Your task to perform on an android device: install app "ZOOM Cloud Meetings" Image 0: 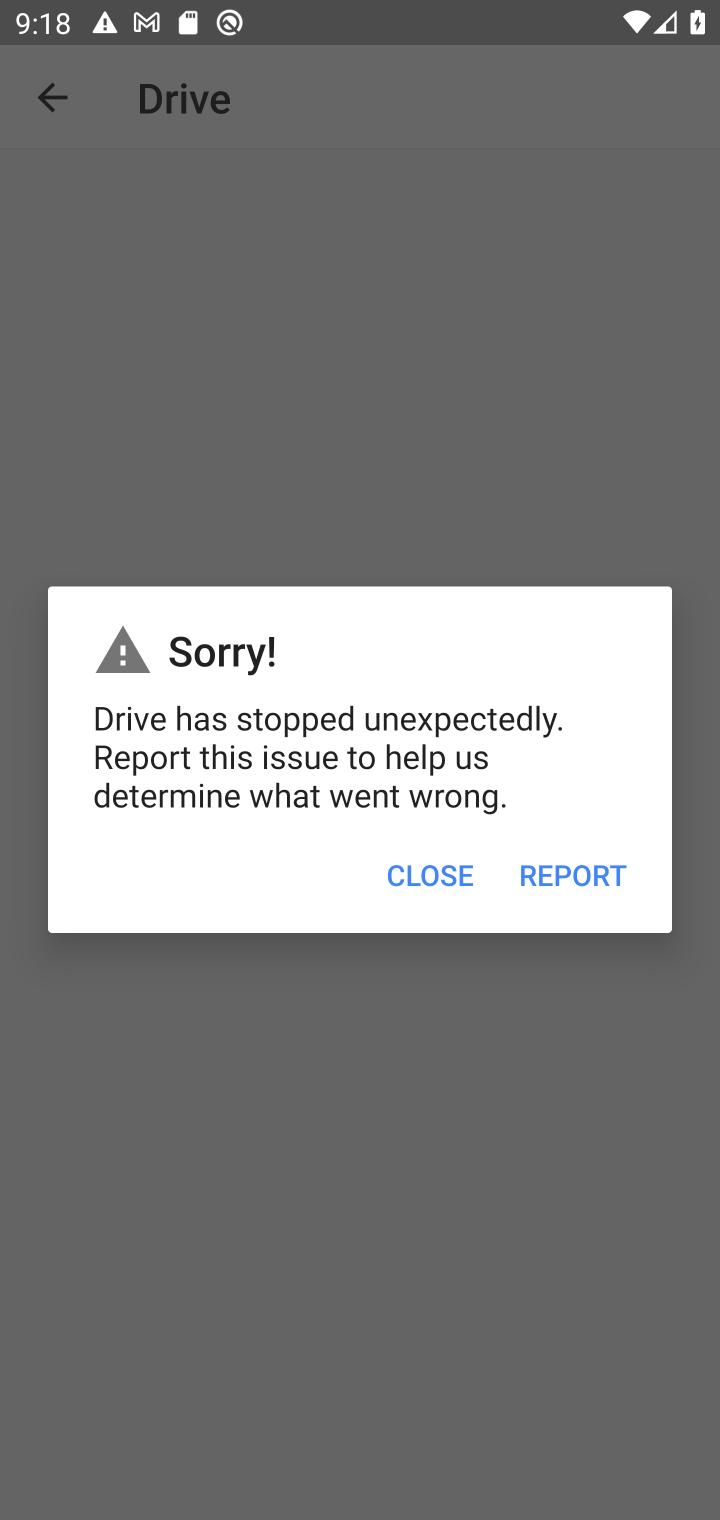
Step 0: press home button
Your task to perform on an android device: install app "ZOOM Cloud Meetings" Image 1: 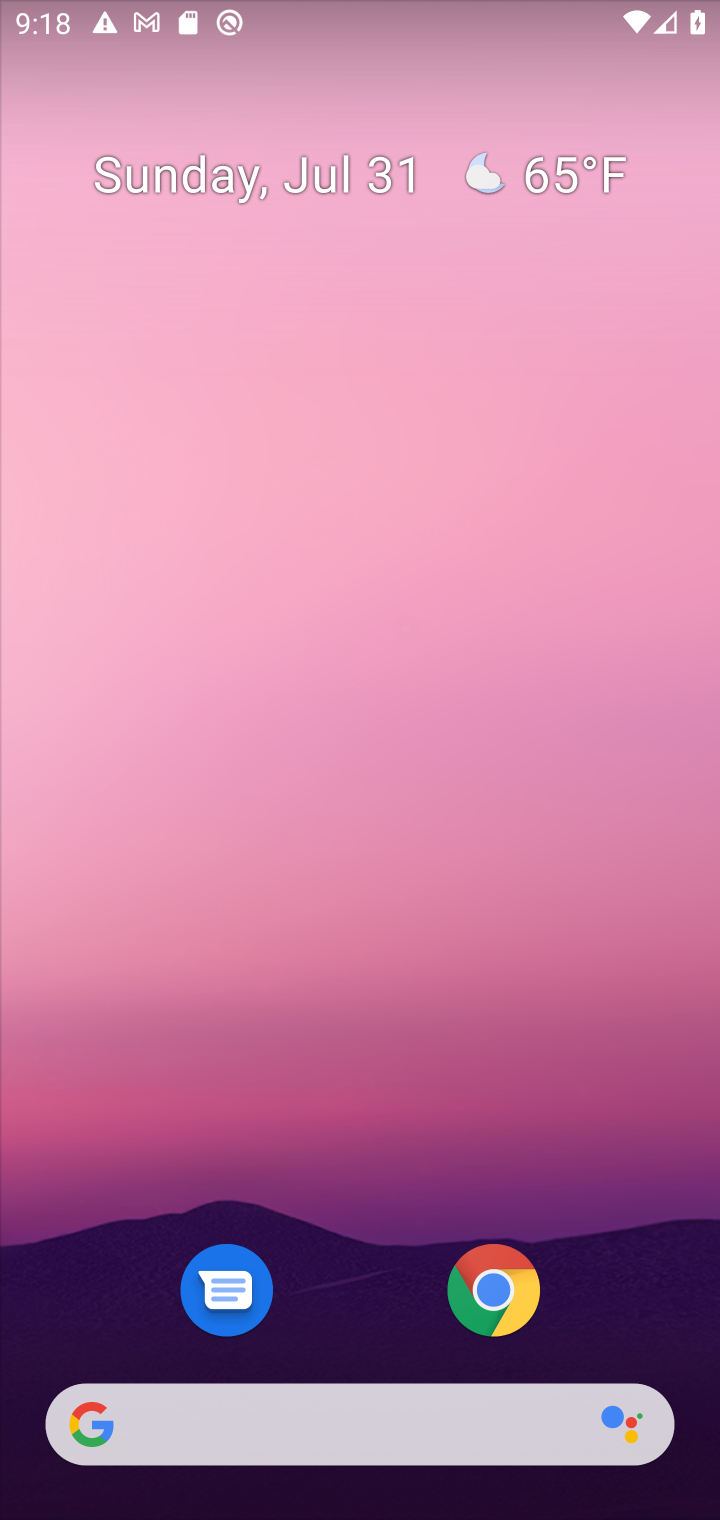
Step 1: drag from (602, 1276) to (583, 193)
Your task to perform on an android device: install app "ZOOM Cloud Meetings" Image 2: 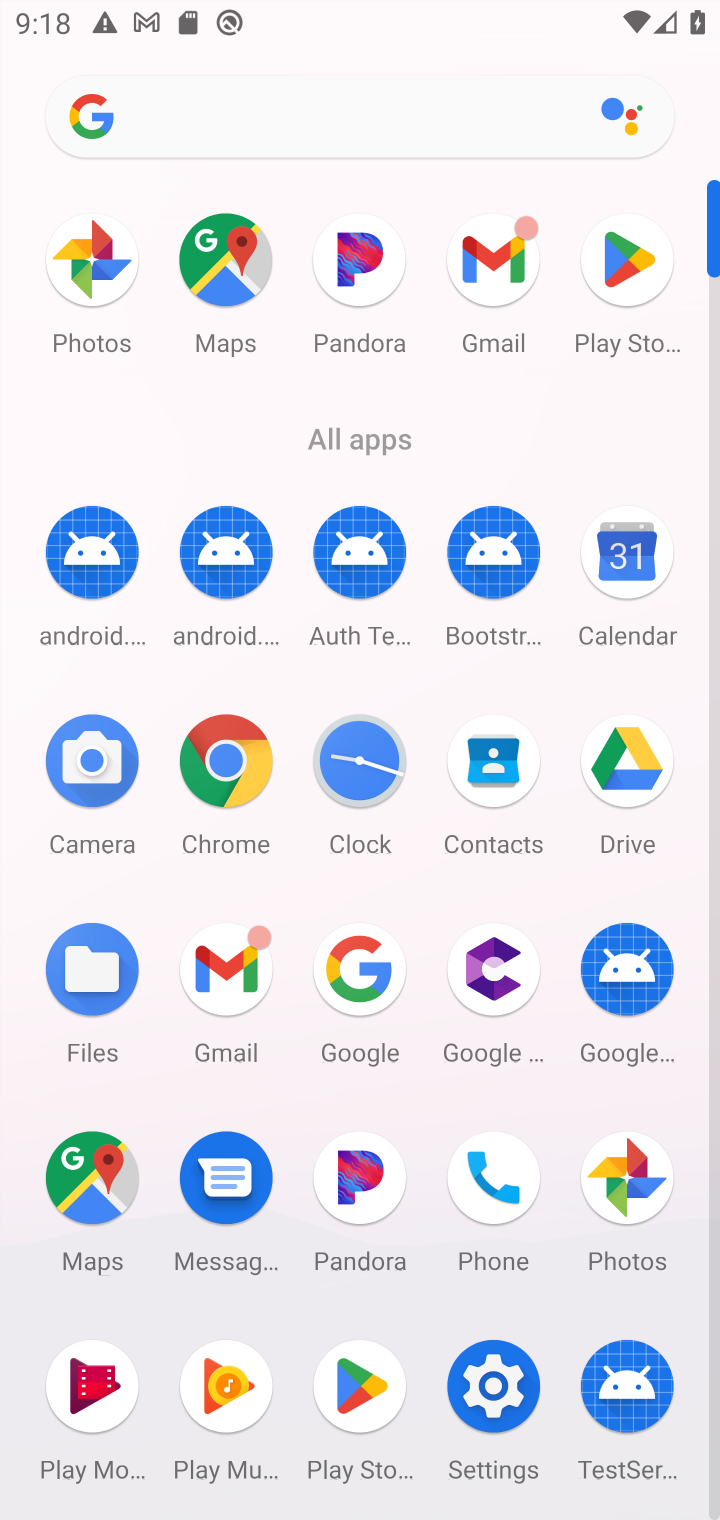
Step 2: click (620, 271)
Your task to perform on an android device: install app "ZOOM Cloud Meetings" Image 3: 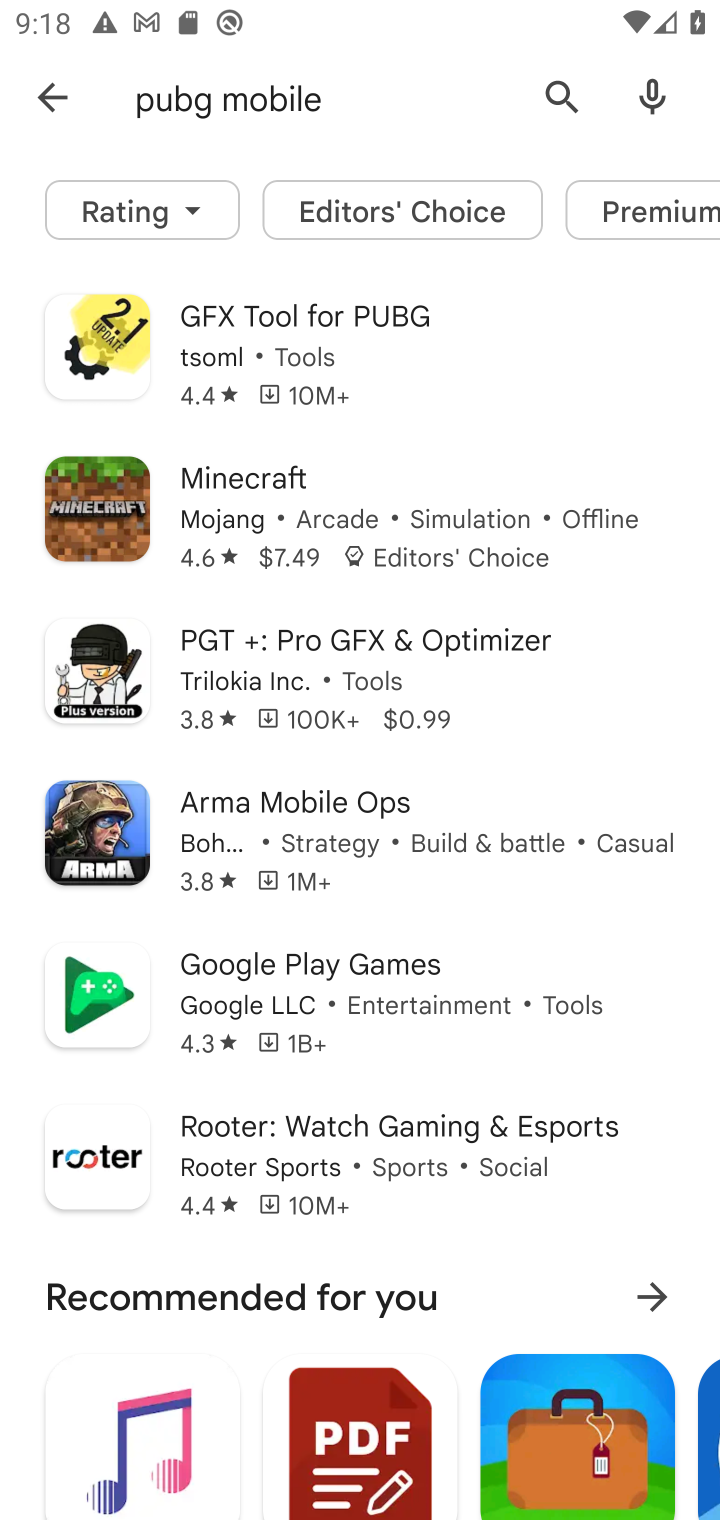
Step 3: click (559, 86)
Your task to perform on an android device: install app "ZOOM Cloud Meetings" Image 4: 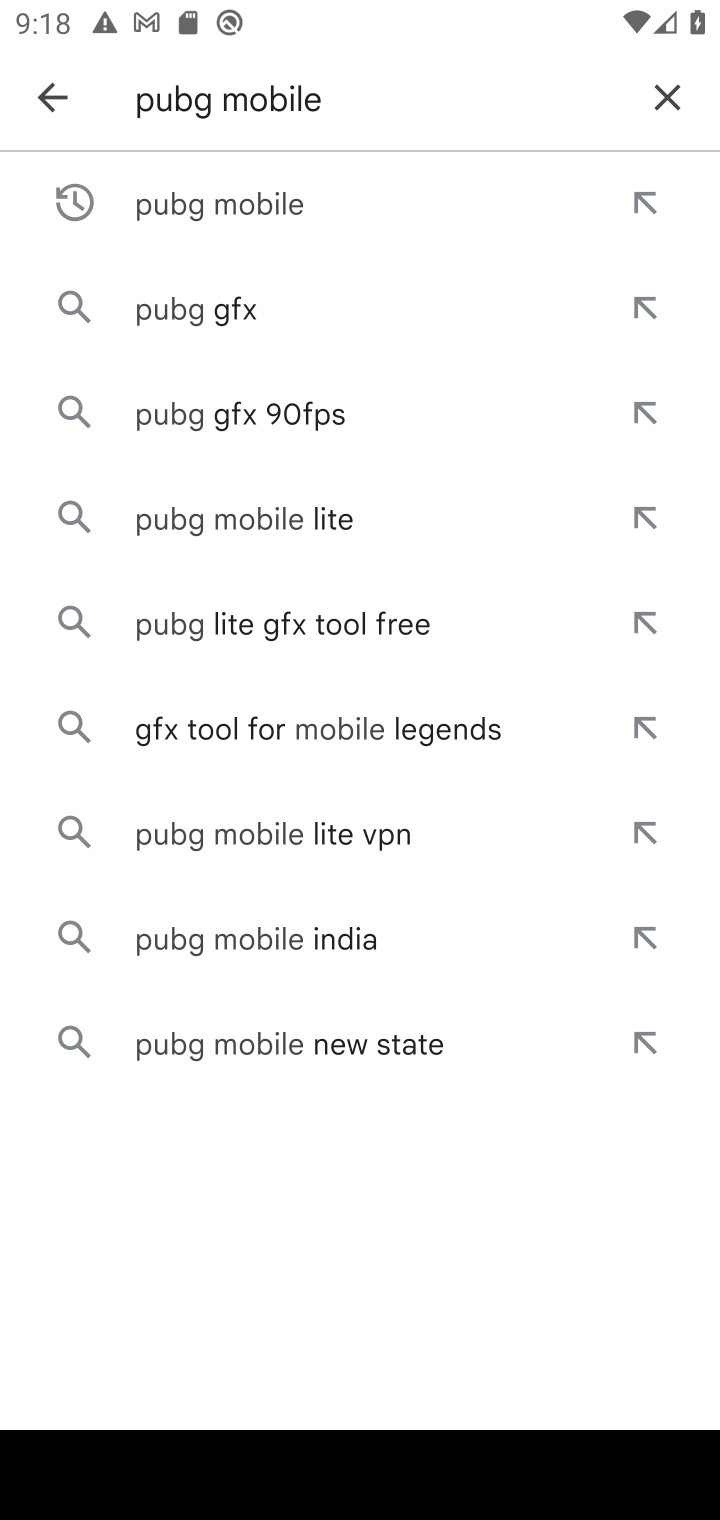
Step 4: click (657, 90)
Your task to perform on an android device: install app "ZOOM Cloud Meetings" Image 5: 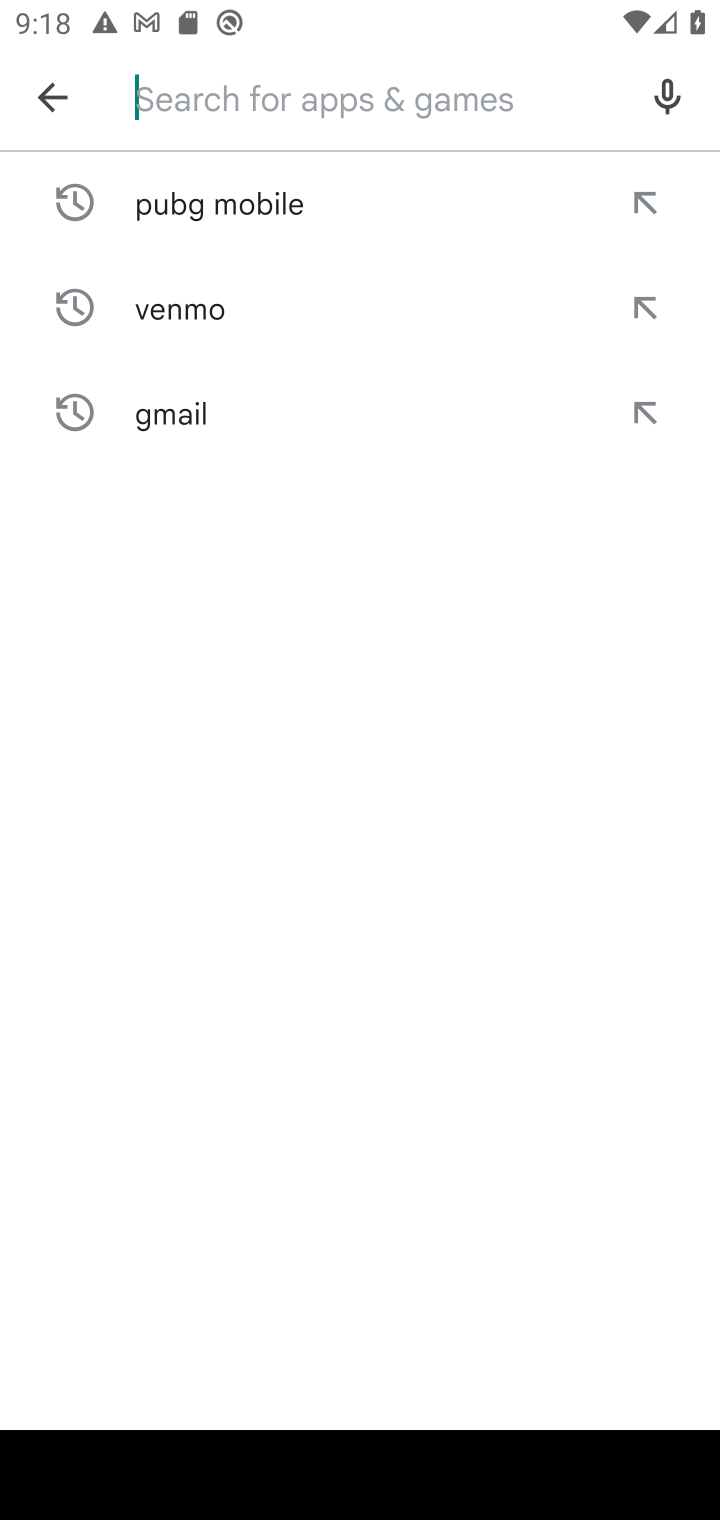
Step 5: click (419, 79)
Your task to perform on an android device: install app "ZOOM Cloud Meetings" Image 6: 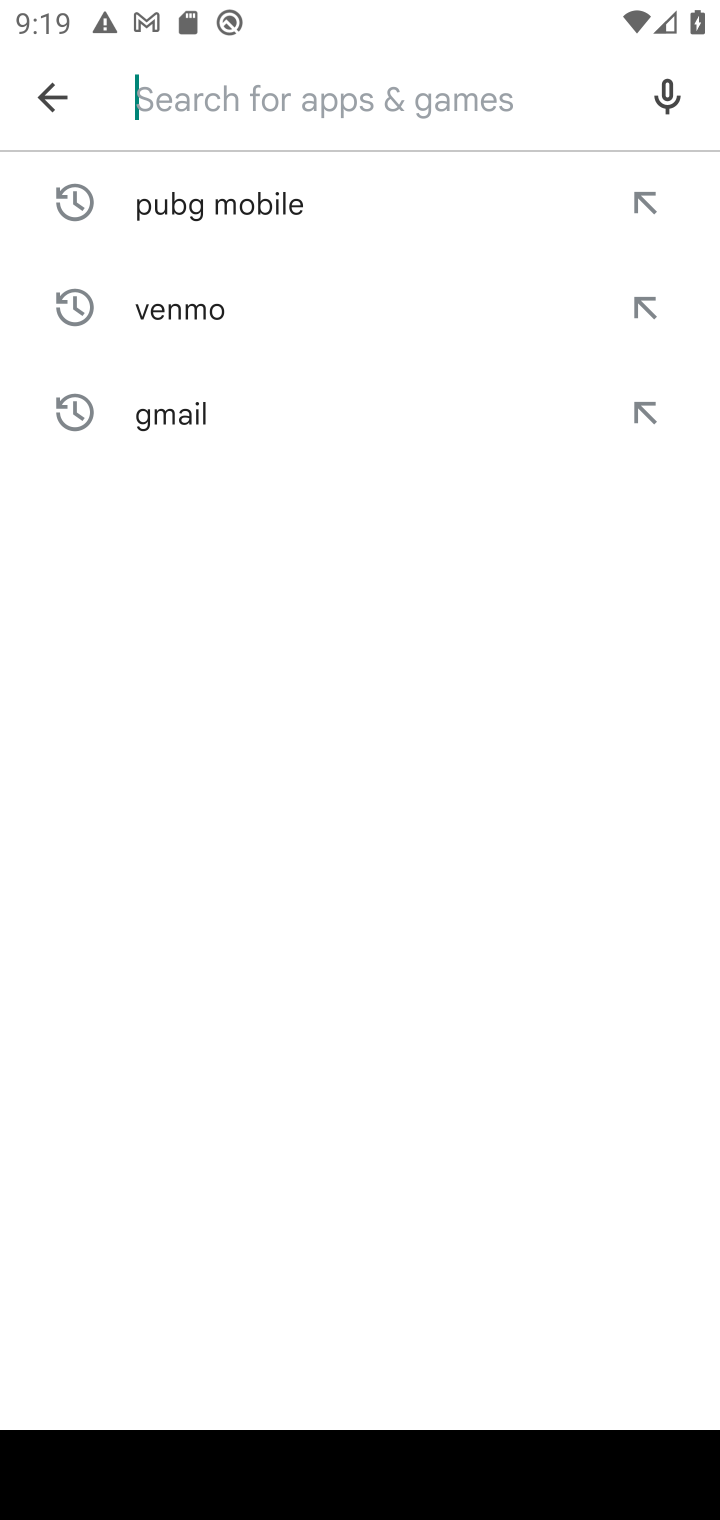
Step 6: type "zoom cloud meeting"
Your task to perform on an android device: install app "ZOOM Cloud Meetings" Image 7: 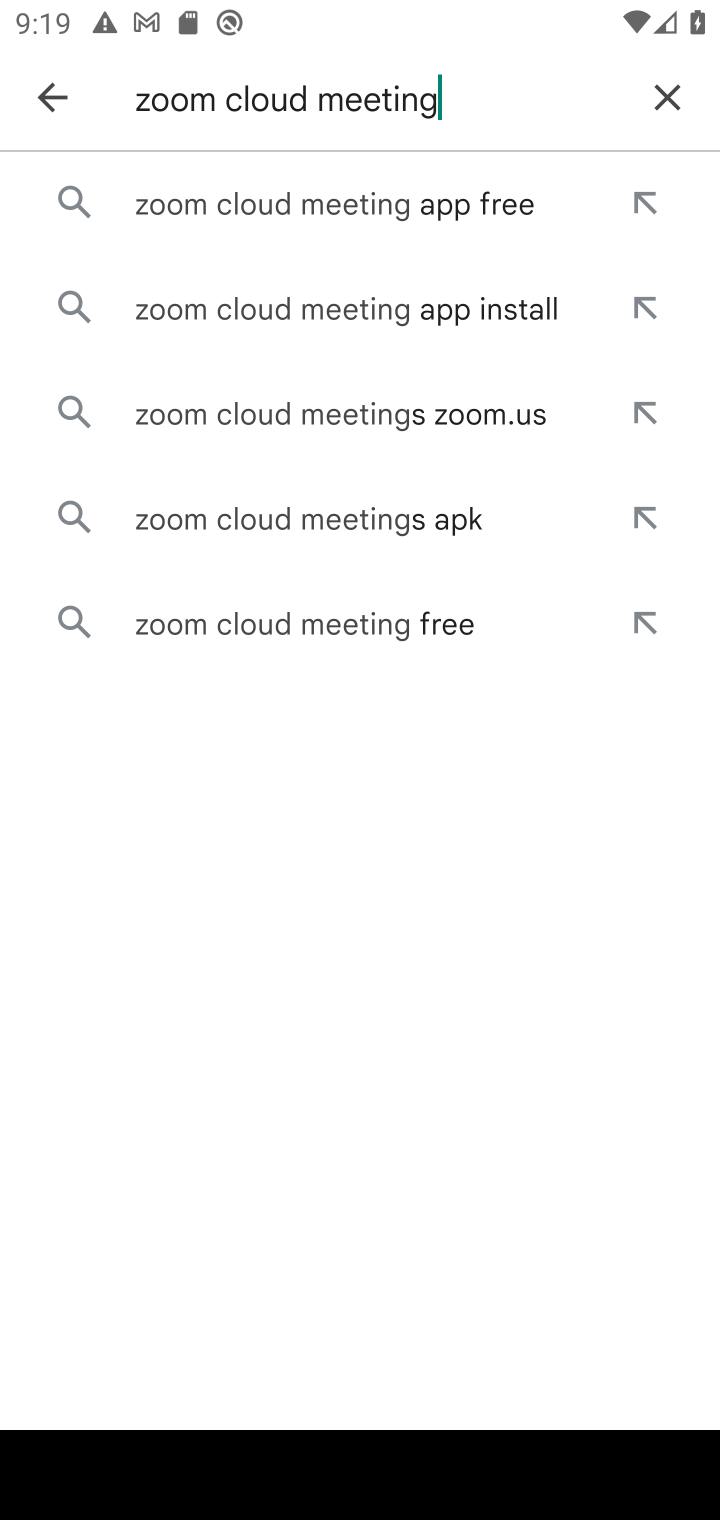
Step 7: click (362, 319)
Your task to perform on an android device: install app "ZOOM Cloud Meetings" Image 8: 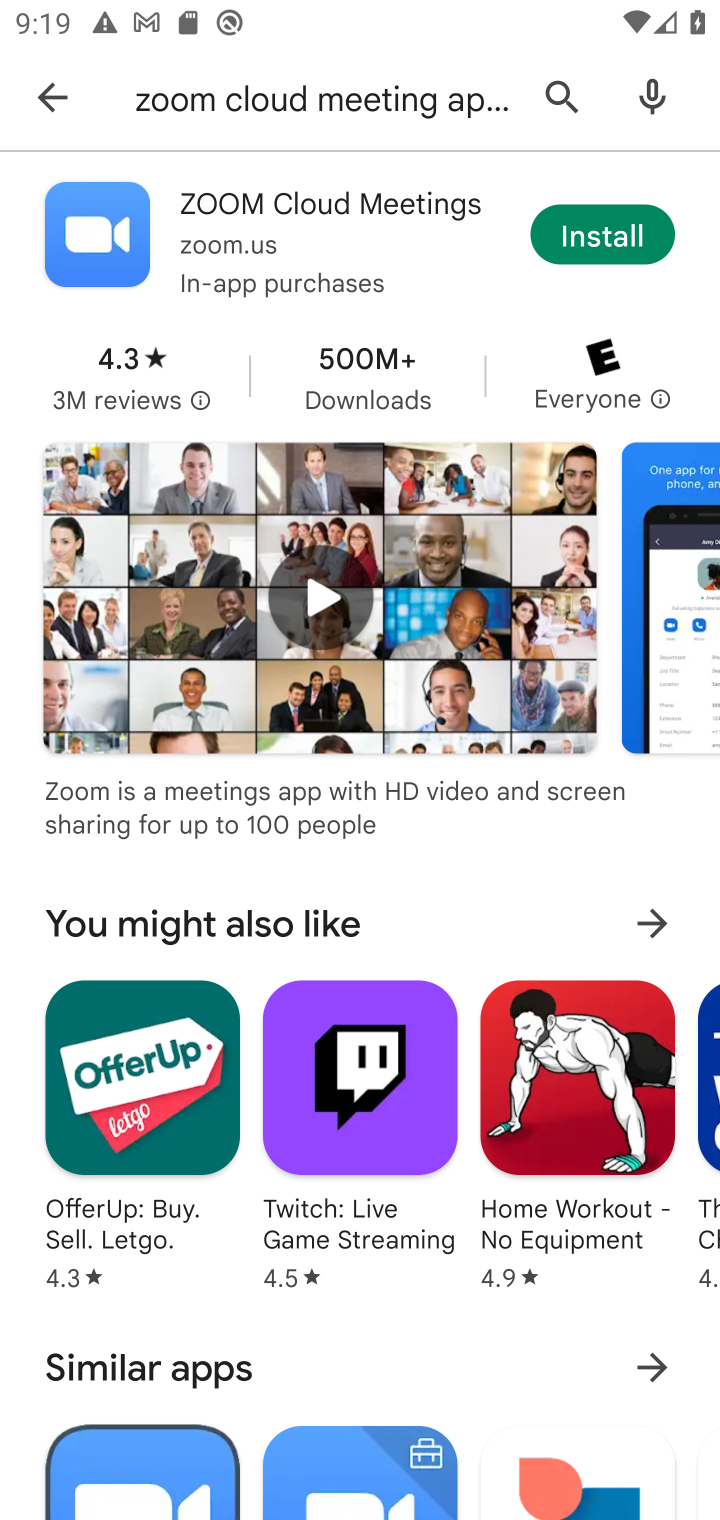
Step 8: click (603, 236)
Your task to perform on an android device: install app "ZOOM Cloud Meetings" Image 9: 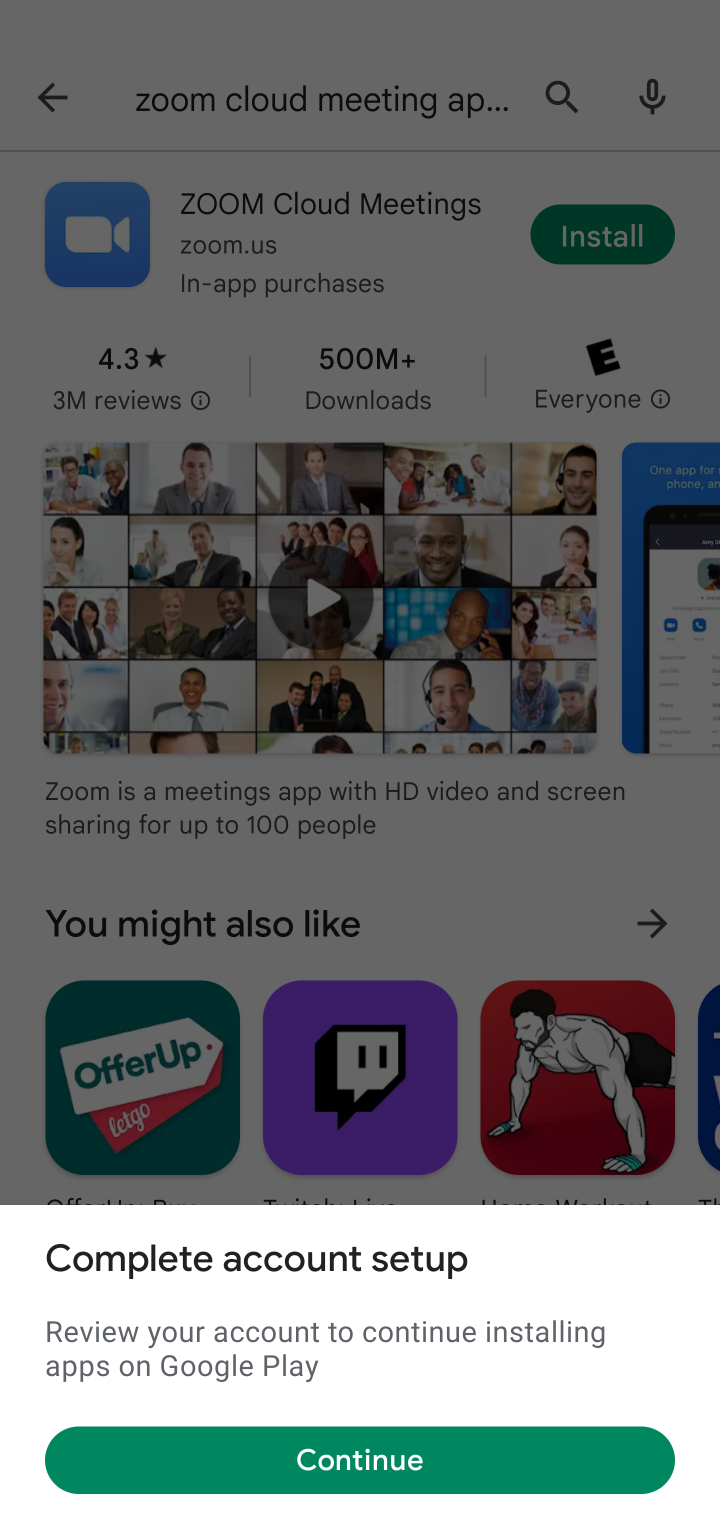
Step 9: click (466, 1458)
Your task to perform on an android device: install app "ZOOM Cloud Meetings" Image 10: 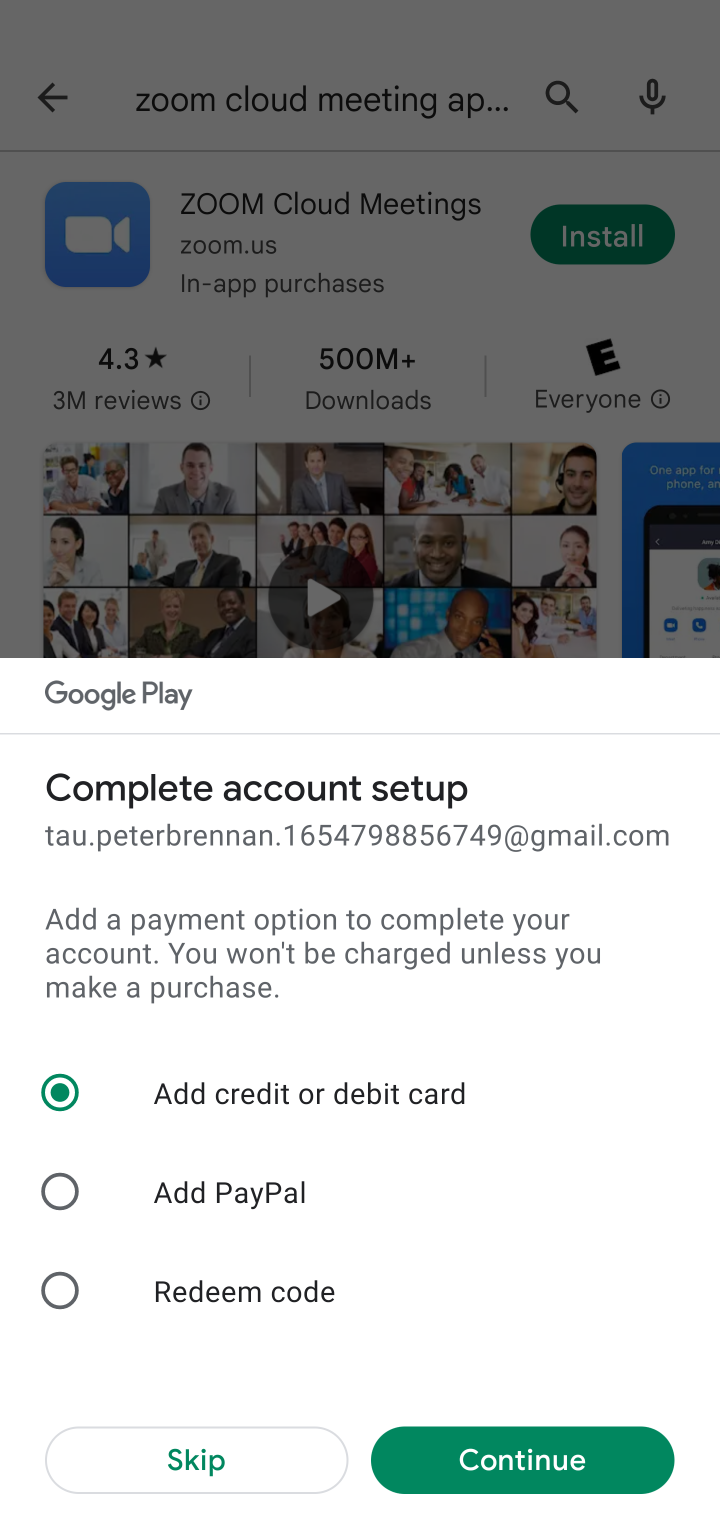
Step 10: click (264, 1474)
Your task to perform on an android device: install app "ZOOM Cloud Meetings" Image 11: 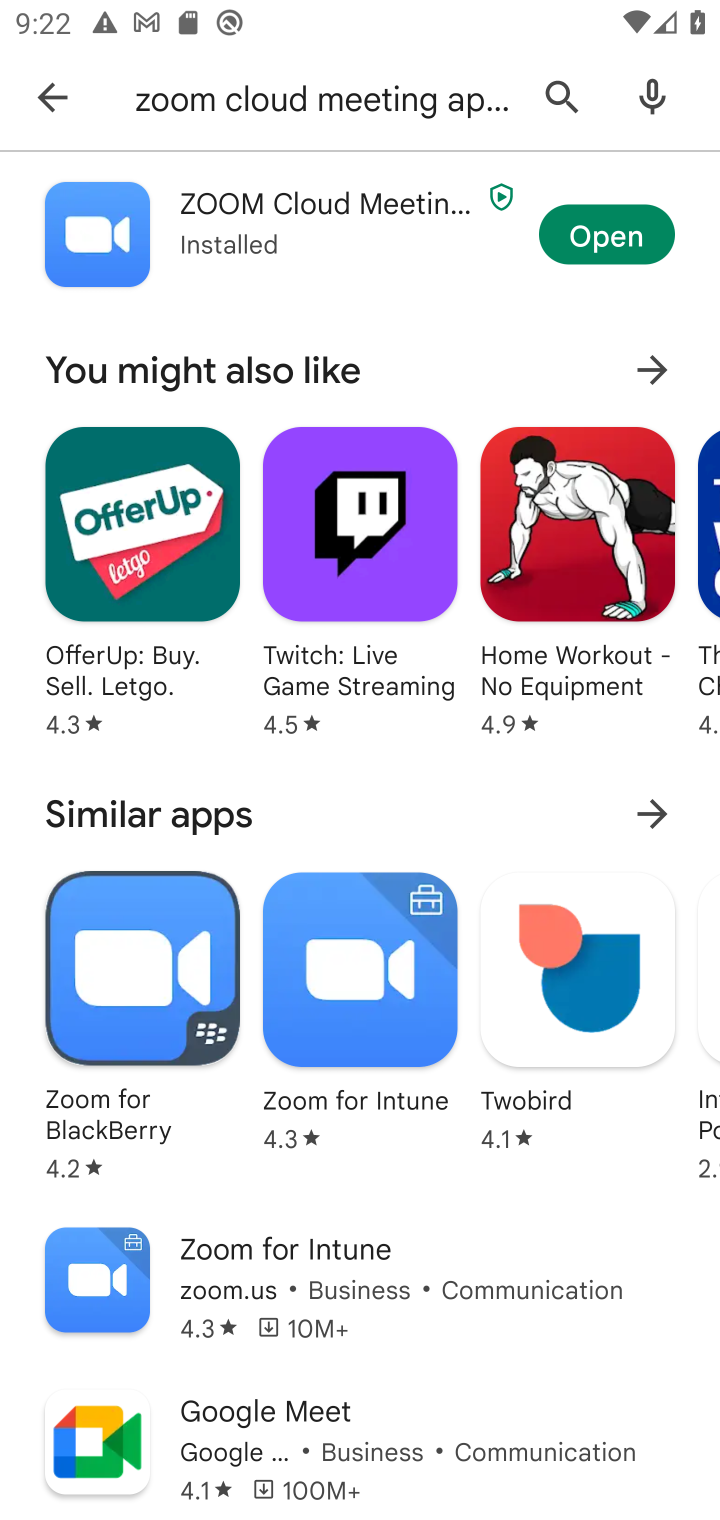
Step 11: task complete